Your task to perform on an android device: change the clock display to show seconds Image 0: 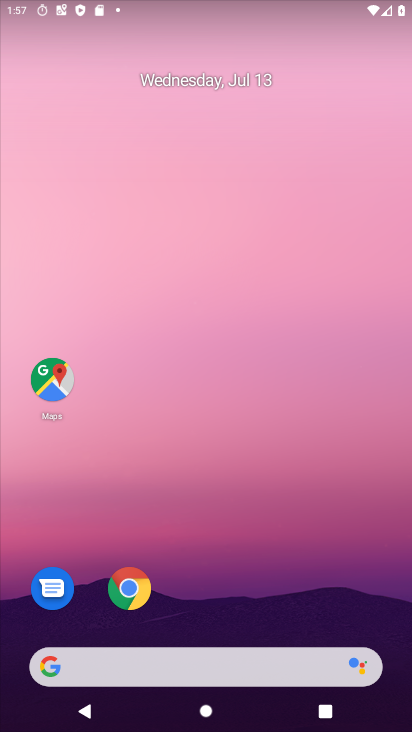
Step 0: drag from (160, 601) to (208, 306)
Your task to perform on an android device: change the clock display to show seconds Image 1: 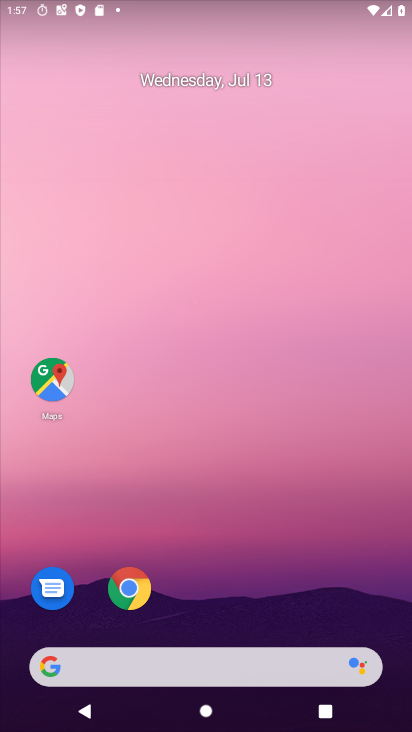
Step 1: drag from (243, 569) to (243, 221)
Your task to perform on an android device: change the clock display to show seconds Image 2: 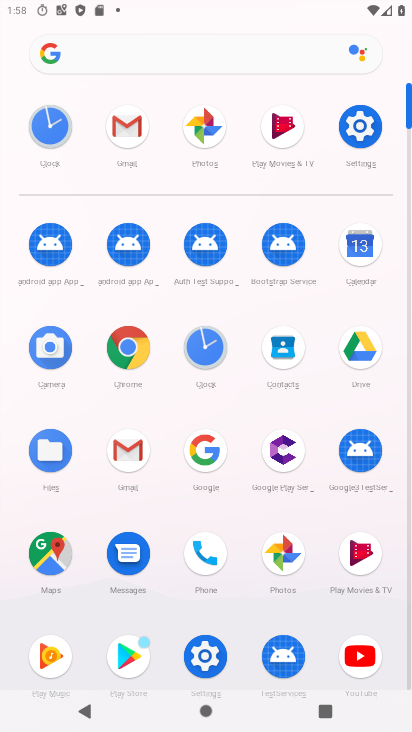
Step 2: click (210, 348)
Your task to perform on an android device: change the clock display to show seconds Image 3: 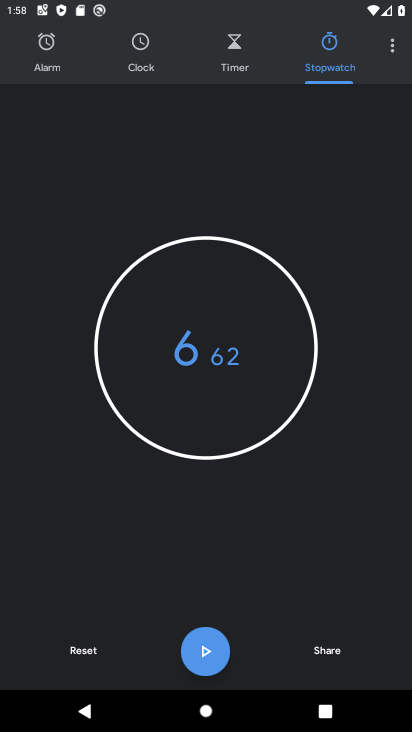
Step 3: click (390, 46)
Your task to perform on an android device: change the clock display to show seconds Image 4: 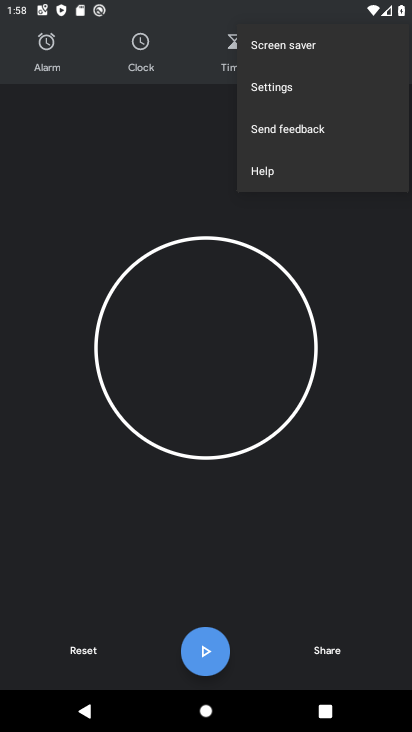
Step 4: click (260, 90)
Your task to perform on an android device: change the clock display to show seconds Image 5: 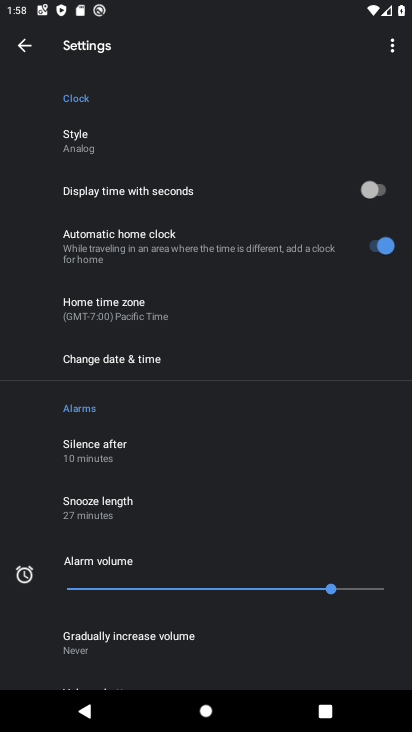
Step 5: click (373, 188)
Your task to perform on an android device: change the clock display to show seconds Image 6: 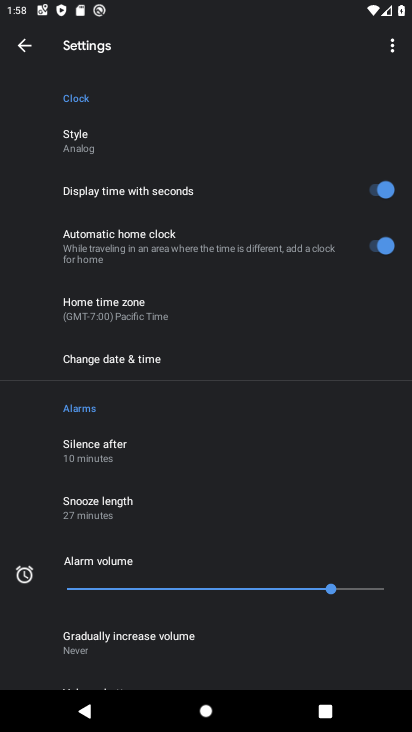
Step 6: task complete